Your task to perform on an android device: Go to settings Image 0: 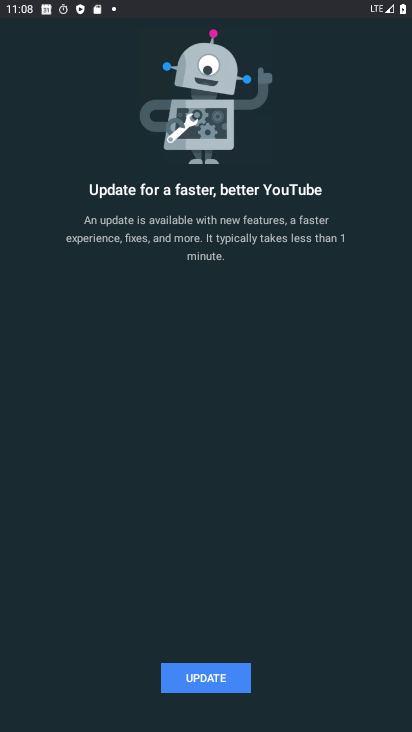
Step 0: press home button
Your task to perform on an android device: Go to settings Image 1: 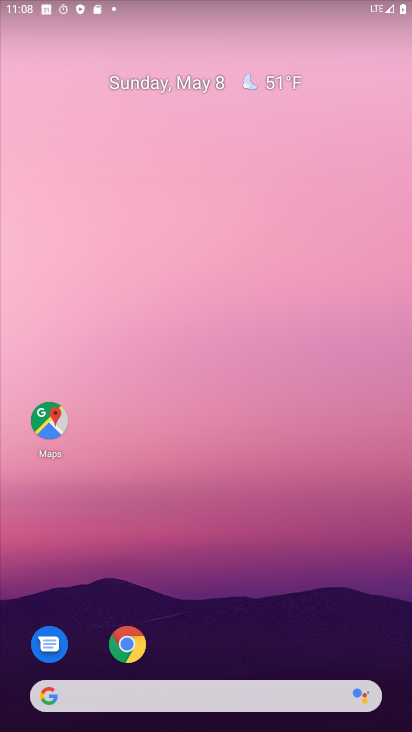
Step 1: drag from (203, 675) to (241, 167)
Your task to perform on an android device: Go to settings Image 2: 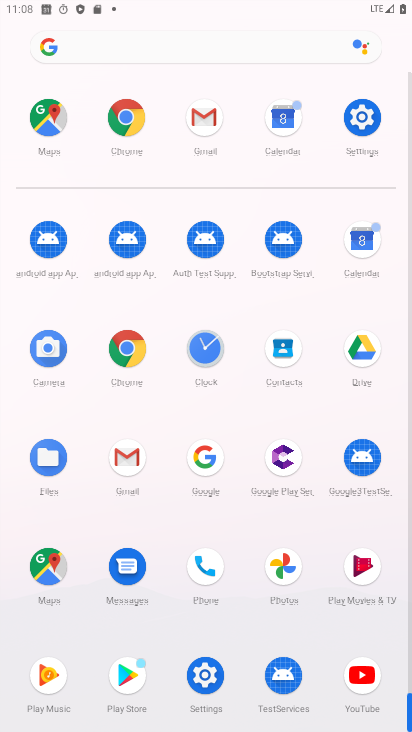
Step 2: click (200, 682)
Your task to perform on an android device: Go to settings Image 3: 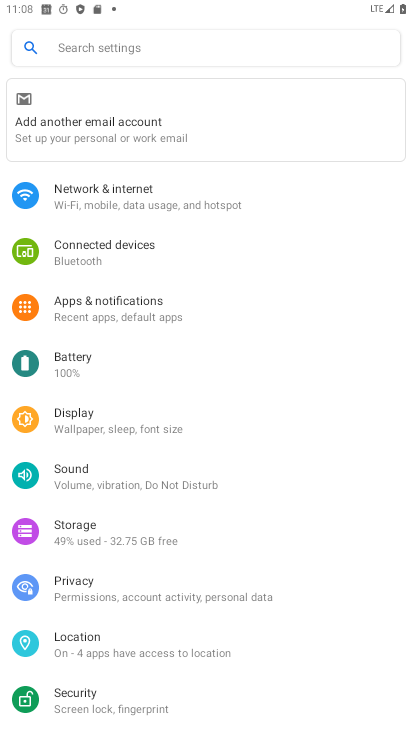
Step 3: drag from (117, 636) to (233, 43)
Your task to perform on an android device: Go to settings Image 4: 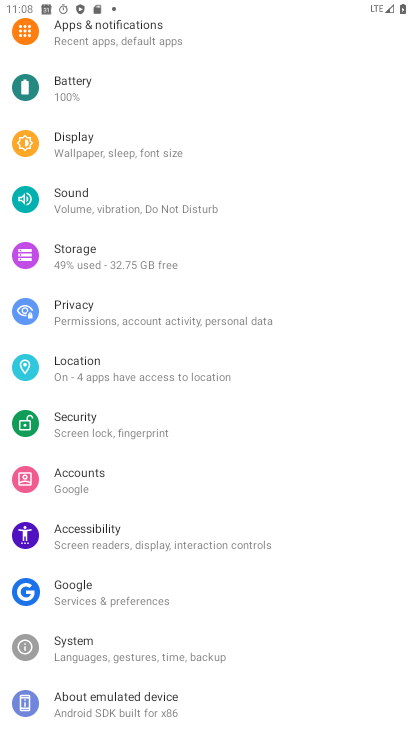
Step 4: drag from (272, 198) to (290, 682)
Your task to perform on an android device: Go to settings Image 5: 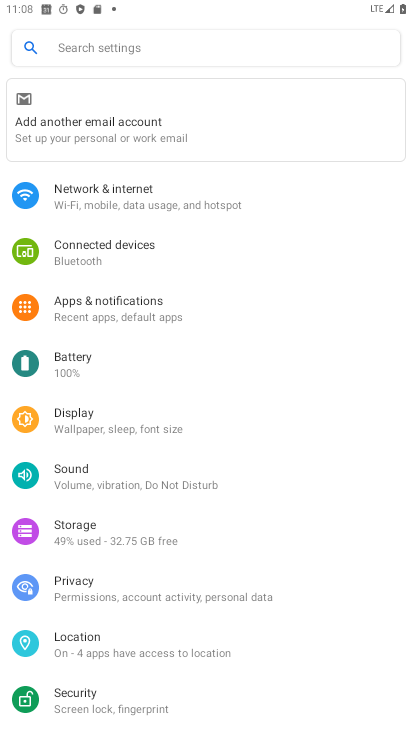
Step 5: click (168, 200)
Your task to perform on an android device: Go to settings Image 6: 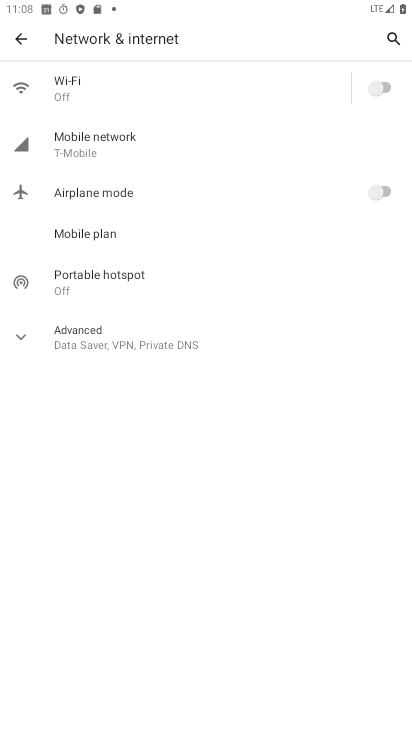
Step 6: task complete